Your task to perform on an android device: delete a single message in the gmail app Image 0: 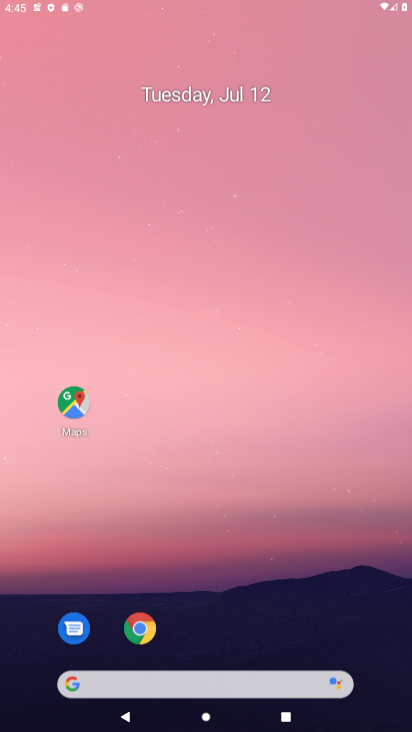
Step 0: press home button
Your task to perform on an android device: delete a single message in the gmail app Image 1: 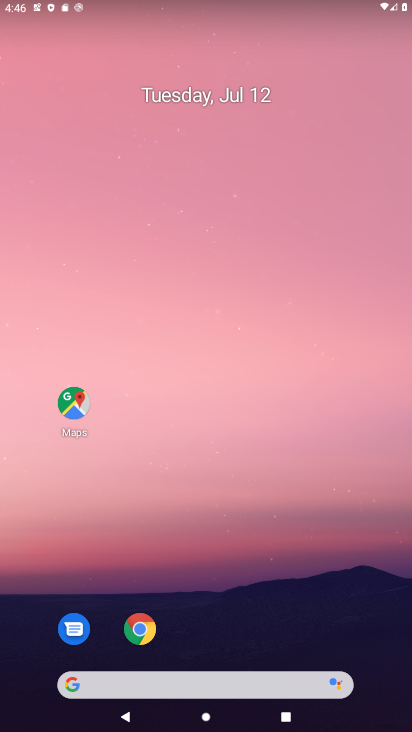
Step 1: drag from (235, 479) to (214, 7)
Your task to perform on an android device: delete a single message in the gmail app Image 2: 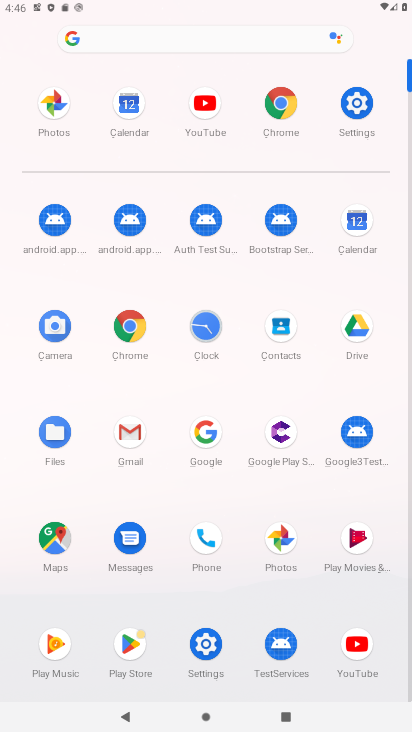
Step 2: click (122, 430)
Your task to perform on an android device: delete a single message in the gmail app Image 3: 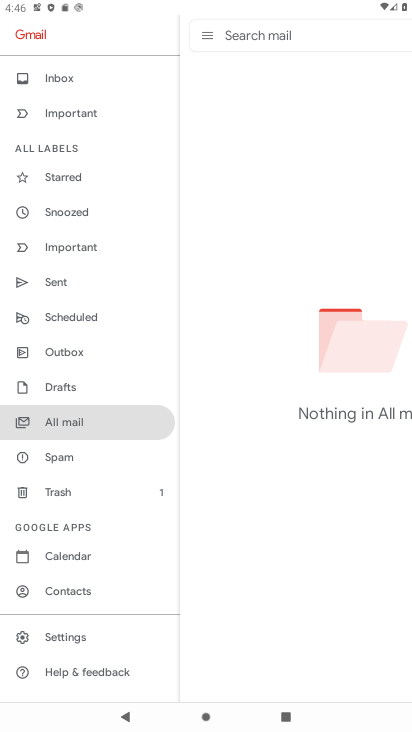
Step 3: click (71, 433)
Your task to perform on an android device: delete a single message in the gmail app Image 4: 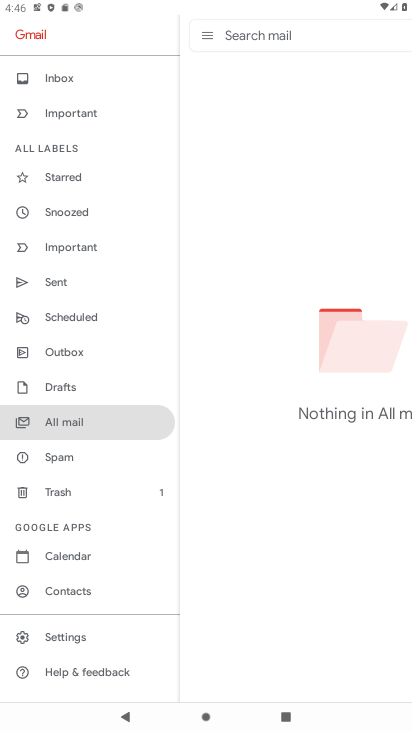
Step 4: task complete